Your task to perform on an android device: show emergency info Image 0: 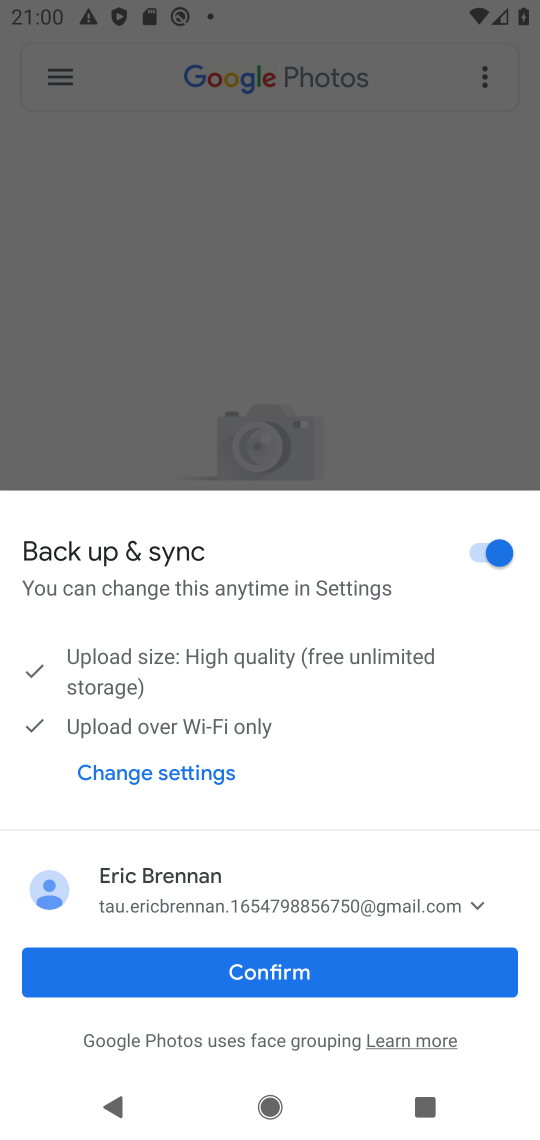
Step 0: press home button
Your task to perform on an android device: show emergency info Image 1: 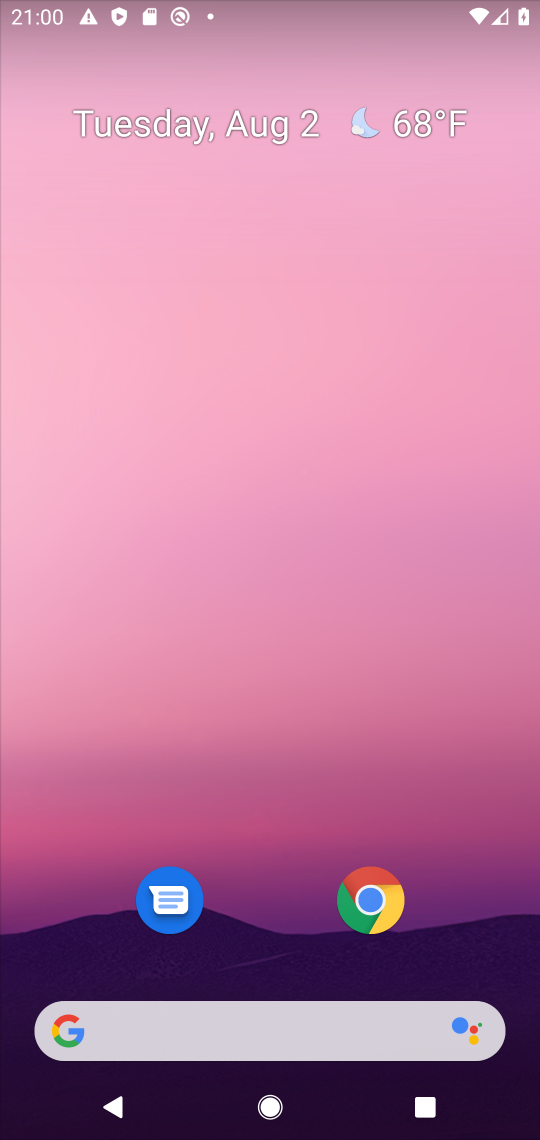
Step 1: drag from (308, 564) to (275, 4)
Your task to perform on an android device: show emergency info Image 2: 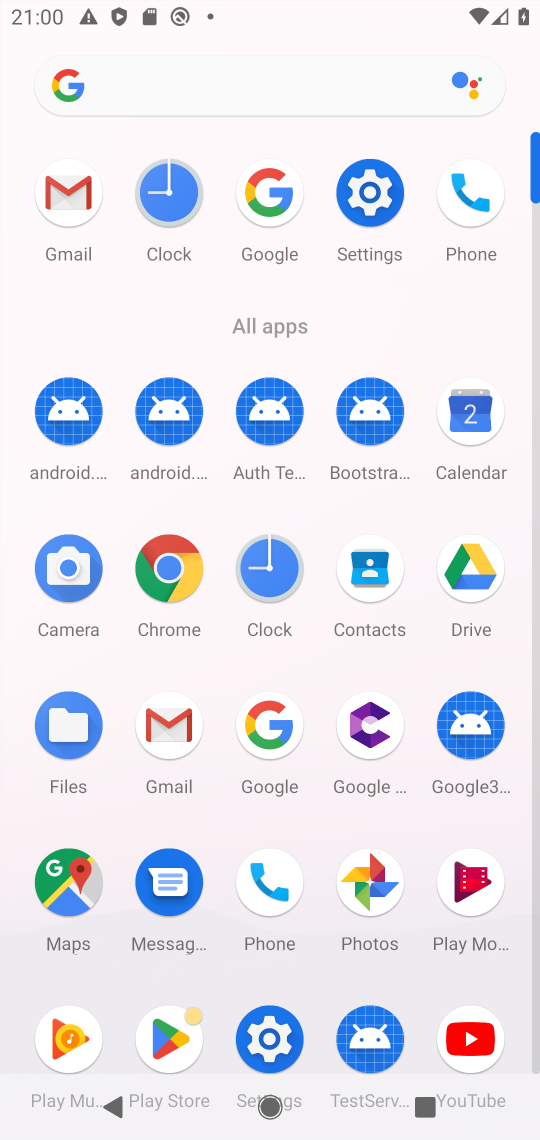
Step 2: click (360, 179)
Your task to perform on an android device: show emergency info Image 3: 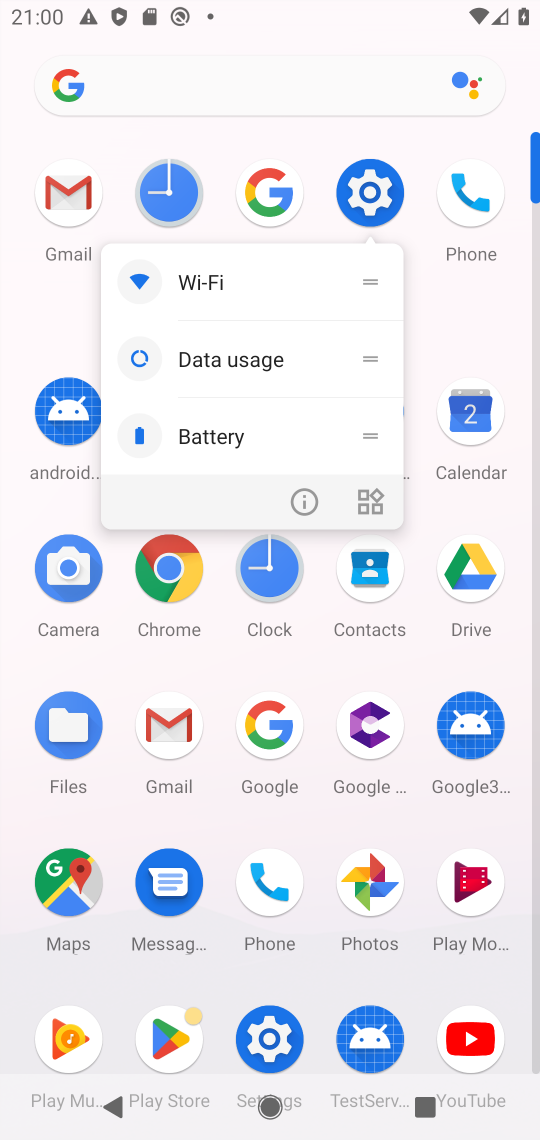
Step 3: click (360, 179)
Your task to perform on an android device: show emergency info Image 4: 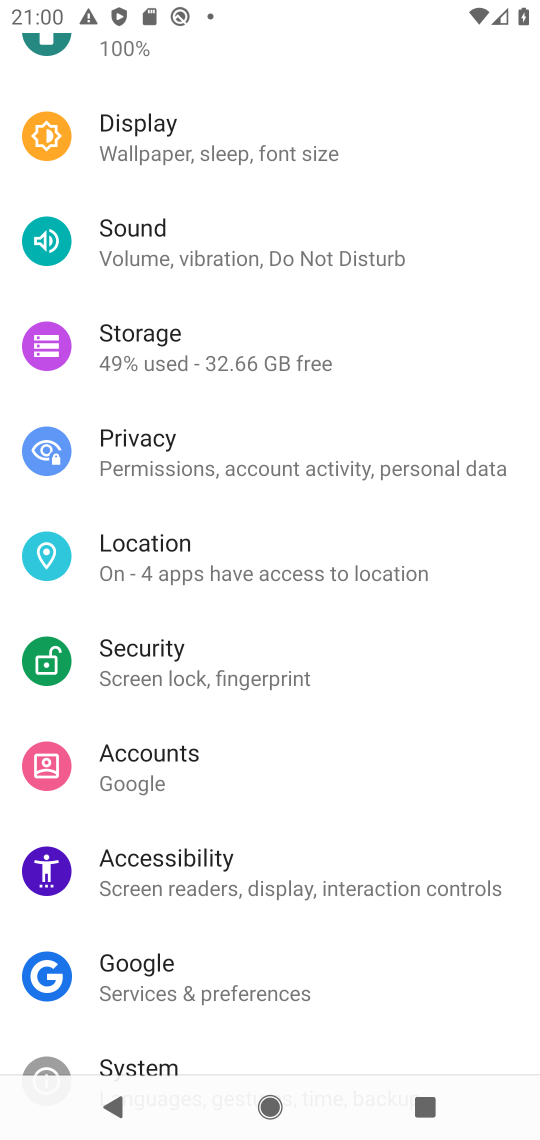
Step 4: drag from (290, 815) to (339, 160)
Your task to perform on an android device: show emergency info Image 5: 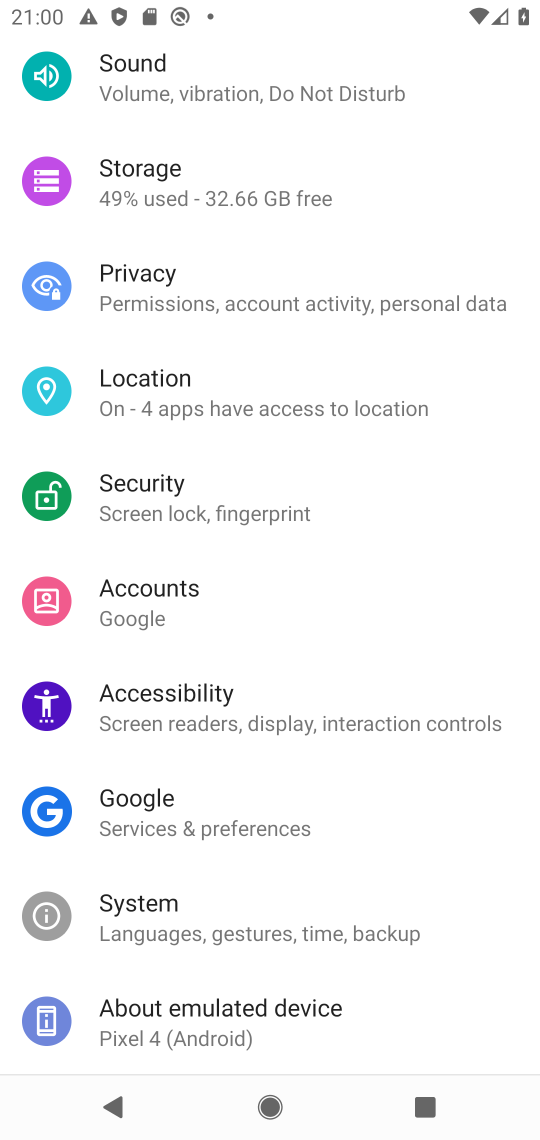
Step 5: click (237, 1013)
Your task to perform on an android device: show emergency info Image 6: 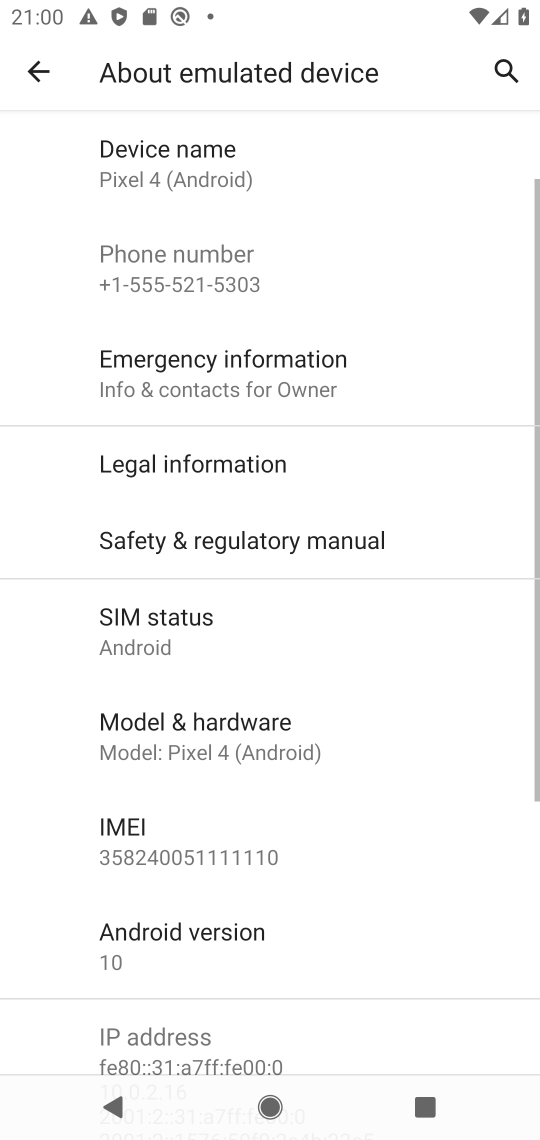
Step 6: click (293, 367)
Your task to perform on an android device: show emergency info Image 7: 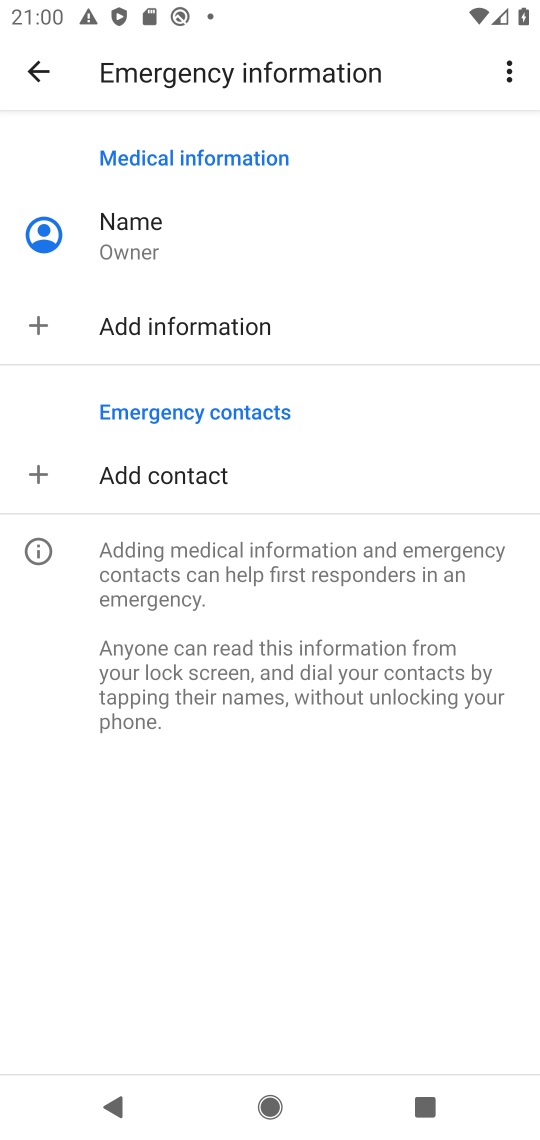
Step 7: task complete